Your task to perform on an android device: turn on sleep mode Image 0: 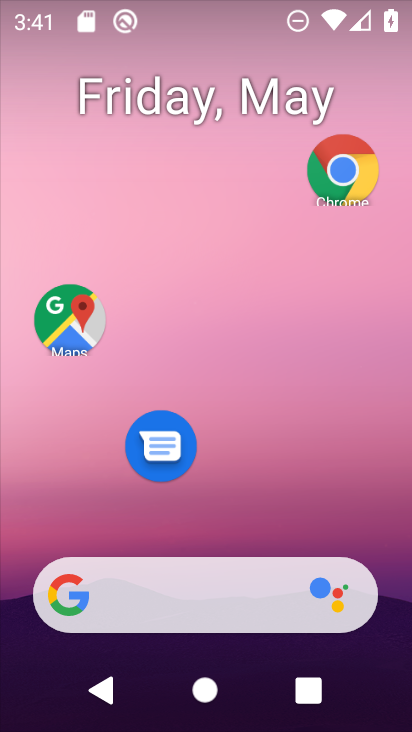
Step 0: drag from (188, 2) to (201, 388)
Your task to perform on an android device: turn on sleep mode Image 1: 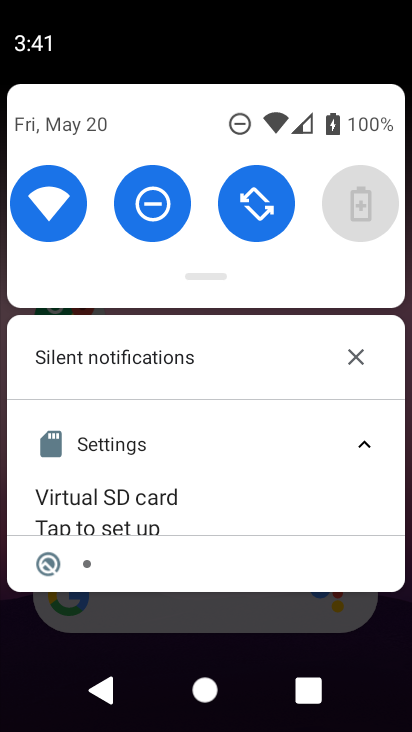
Step 1: task complete